Your task to perform on an android device: View the shopping cart on amazon.com. Add "alienware area 51" to the cart on amazon.com Image 0: 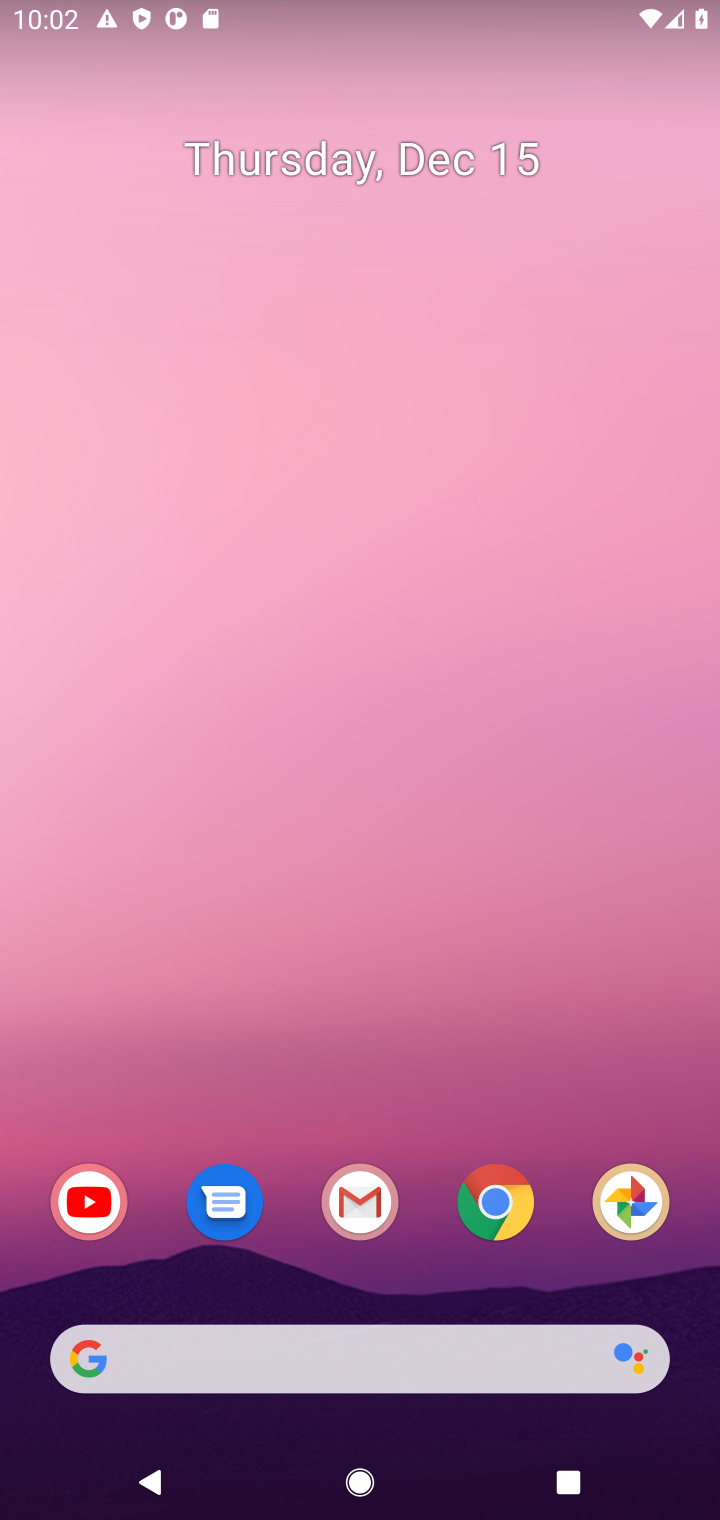
Step 0: click (494, 1202)
Your task to perform on an android device: View the shopping cart on amazon.com. Add "alienware area 51" to the cart on amazon.com Image 1: 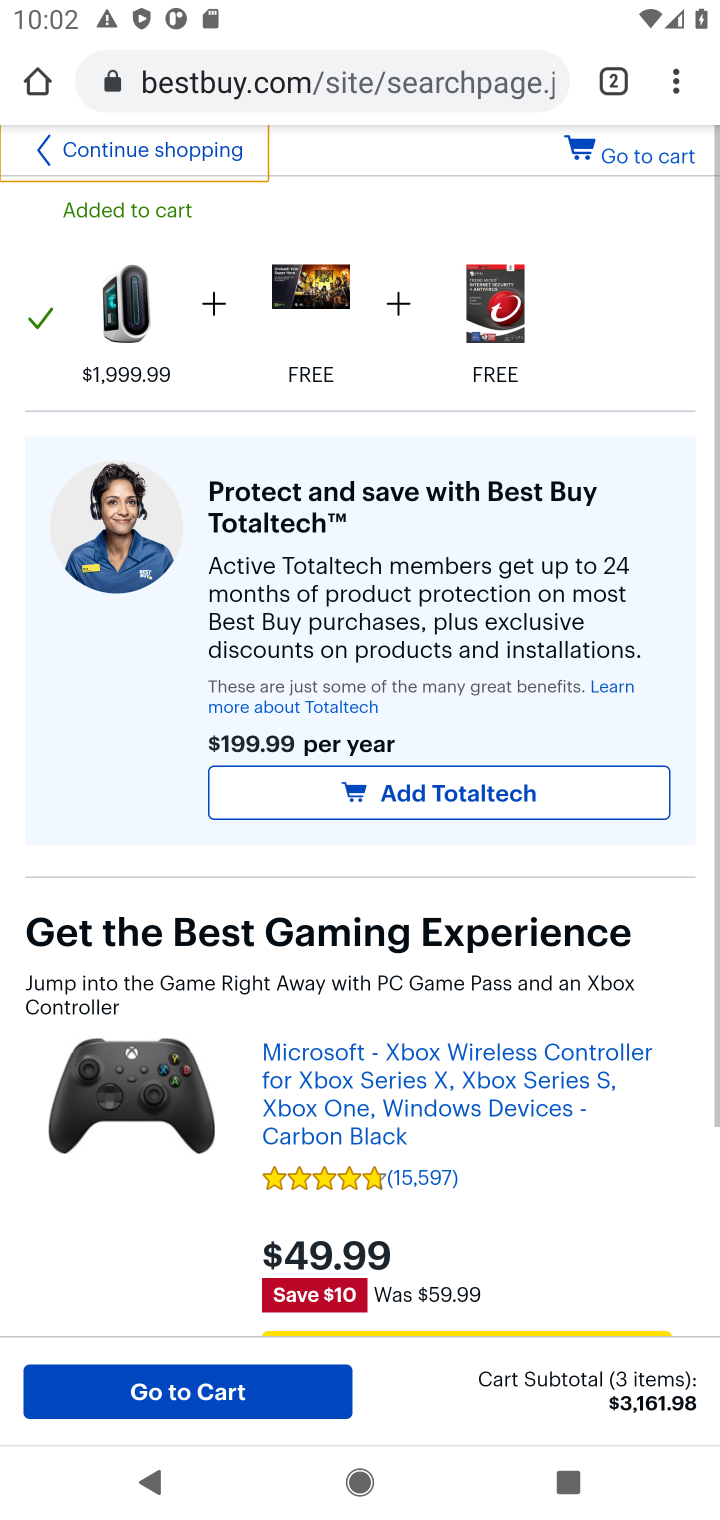
Step 1: click (238, 80)
Your task to perform on an android device: View the shopping cart on amazon.com. Add "alienware area 51" to the cart on amazon.com Image 2: 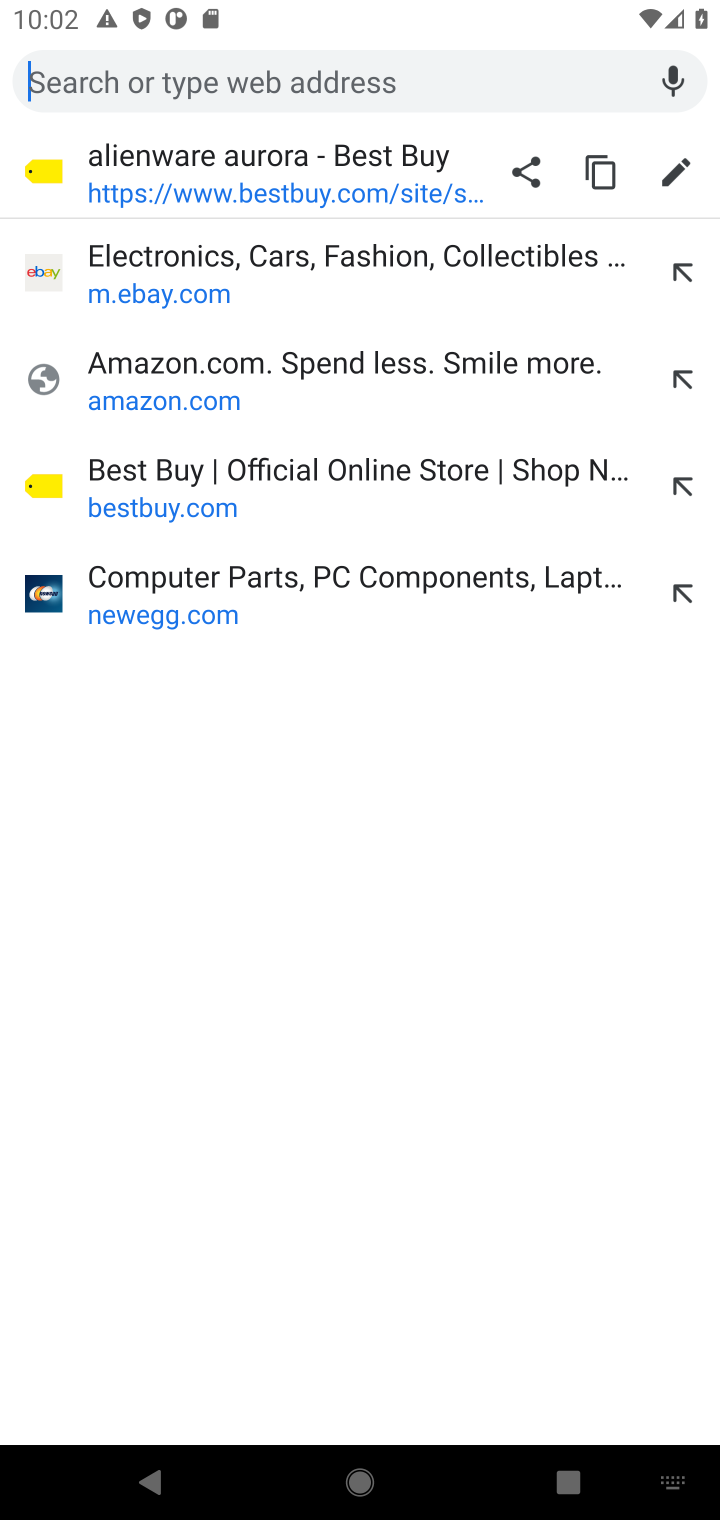
Step 2: click (133, 399)
Your task to perform on an android device: View the shopping cart on amazon.com. Add "alienware area 51" to the cart on amazon.com Image 3: 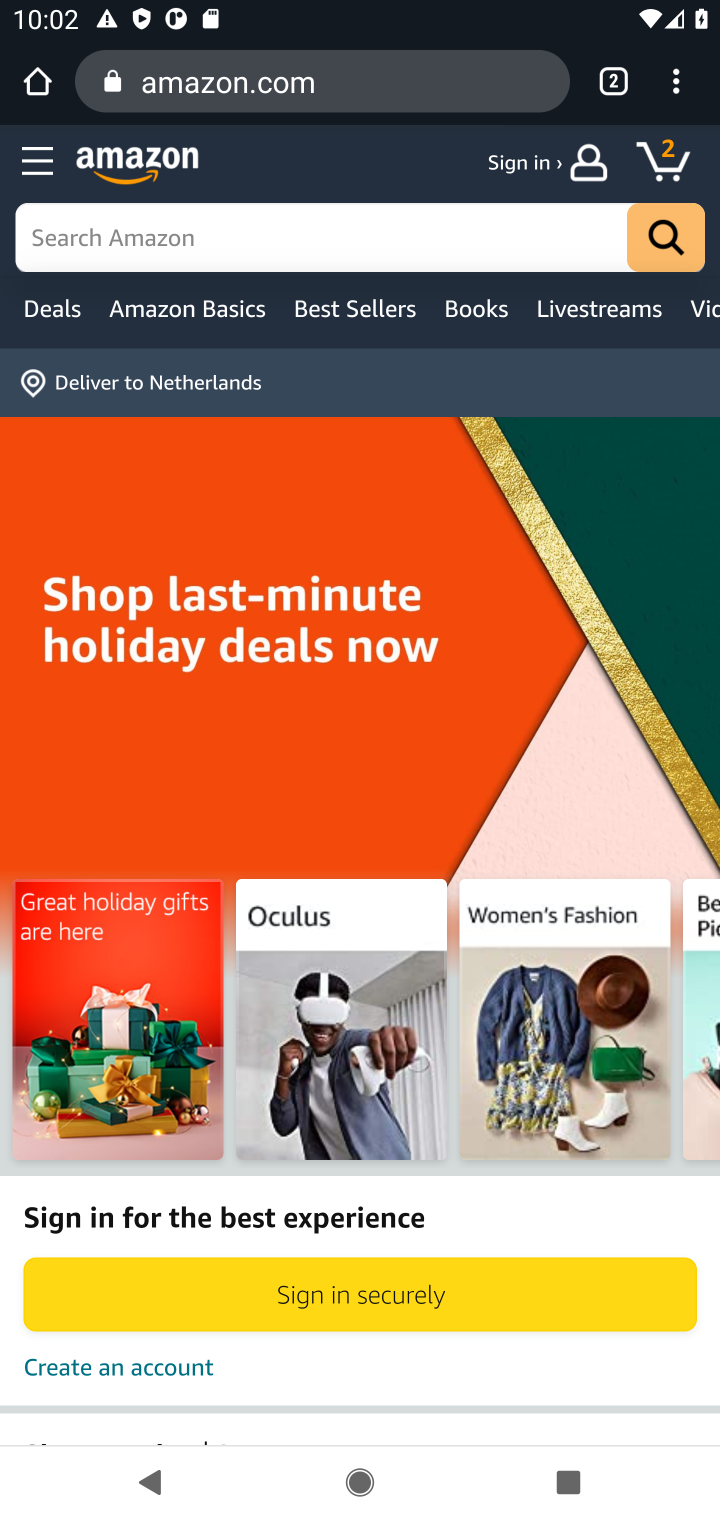
Step 3: click (670, 167)
Your task to perform on an android device: View the shopping cart on amazon.com. Add "alienware area 51" to the cart on amazon.com Image 4: 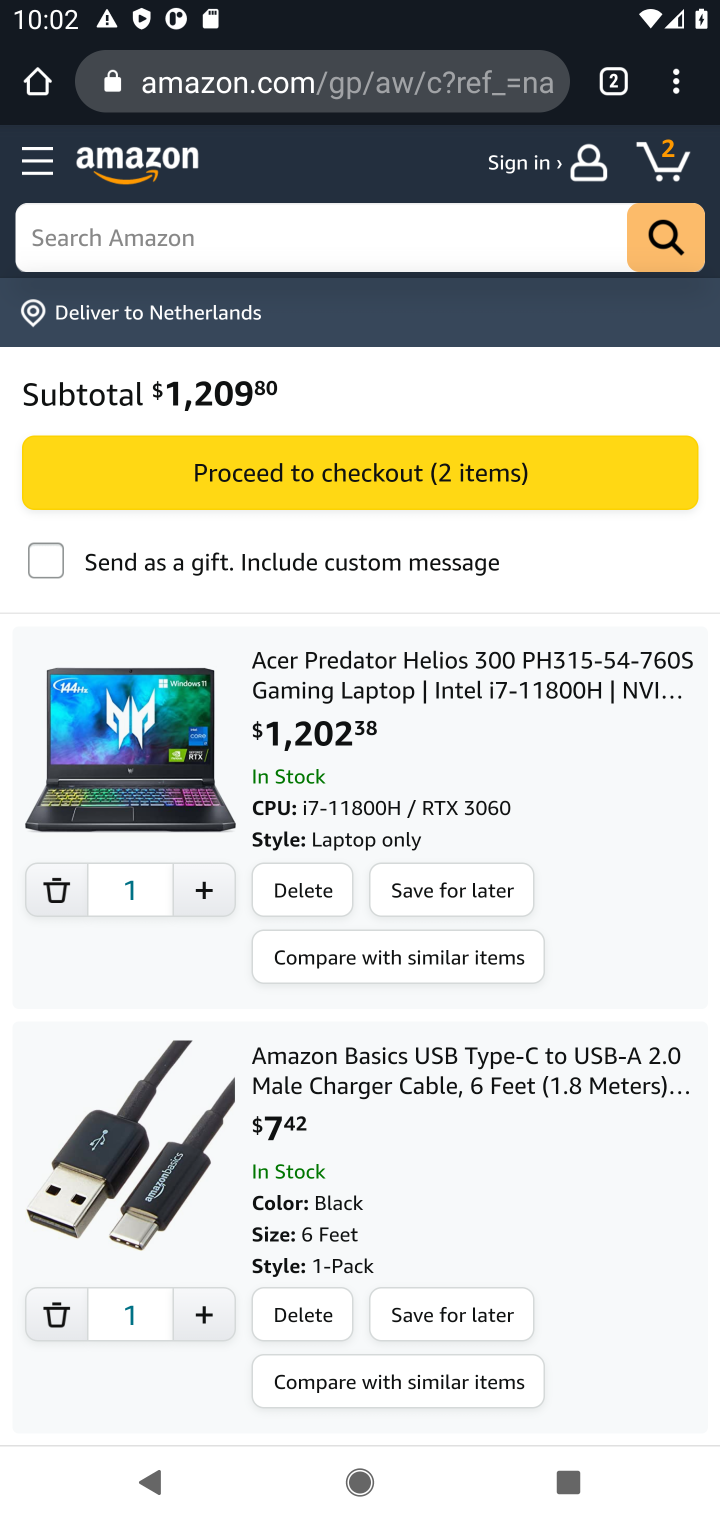
Step 4: click (158, 239)
Your task to perform on an android device: View the shopping cart on amazon.com. Add "alienware area 51" to the cart on amazon.com Image 5: 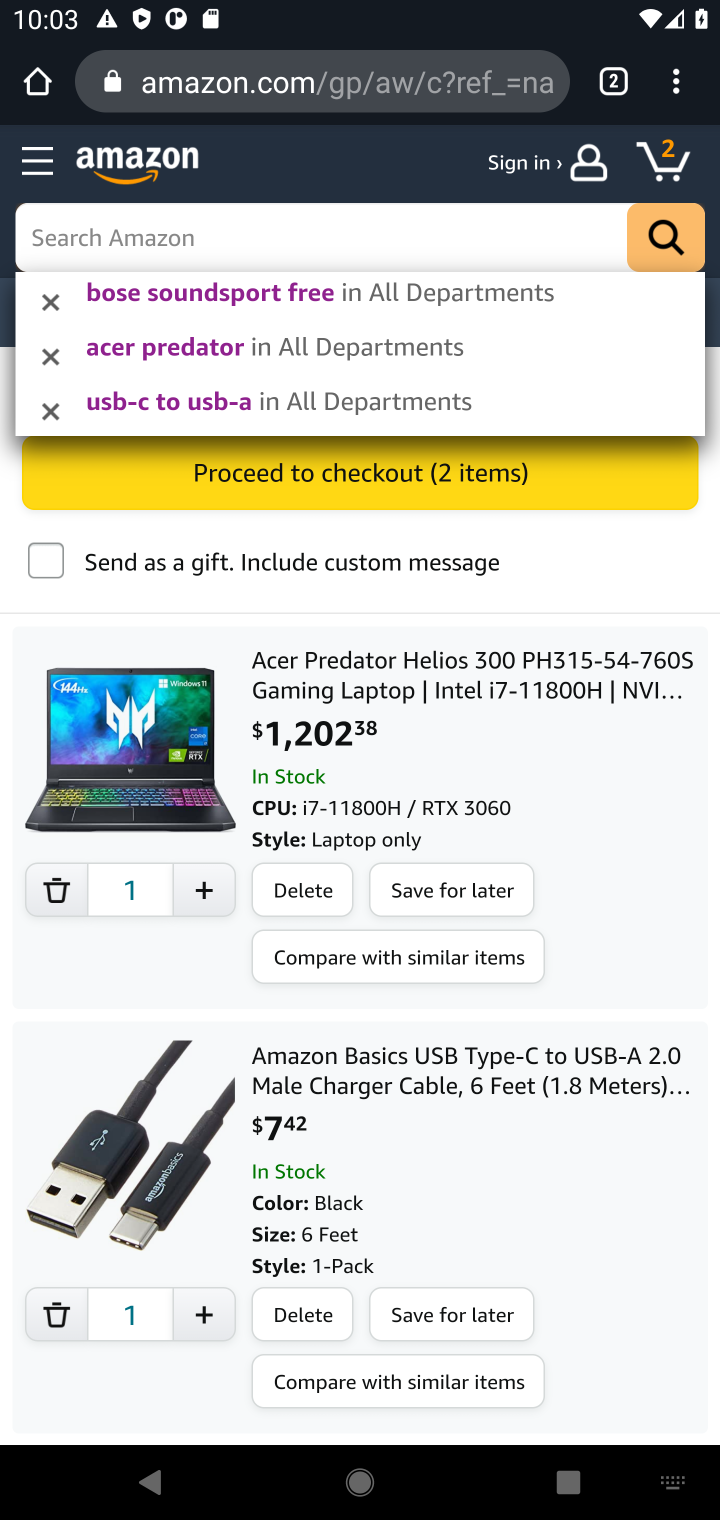
Step 5: type "alienware area 51"
Your task to perform on an android device: View the shopping cart on amazon.com. Add "alienware area 51" to the cart on amazon.com Image 6: 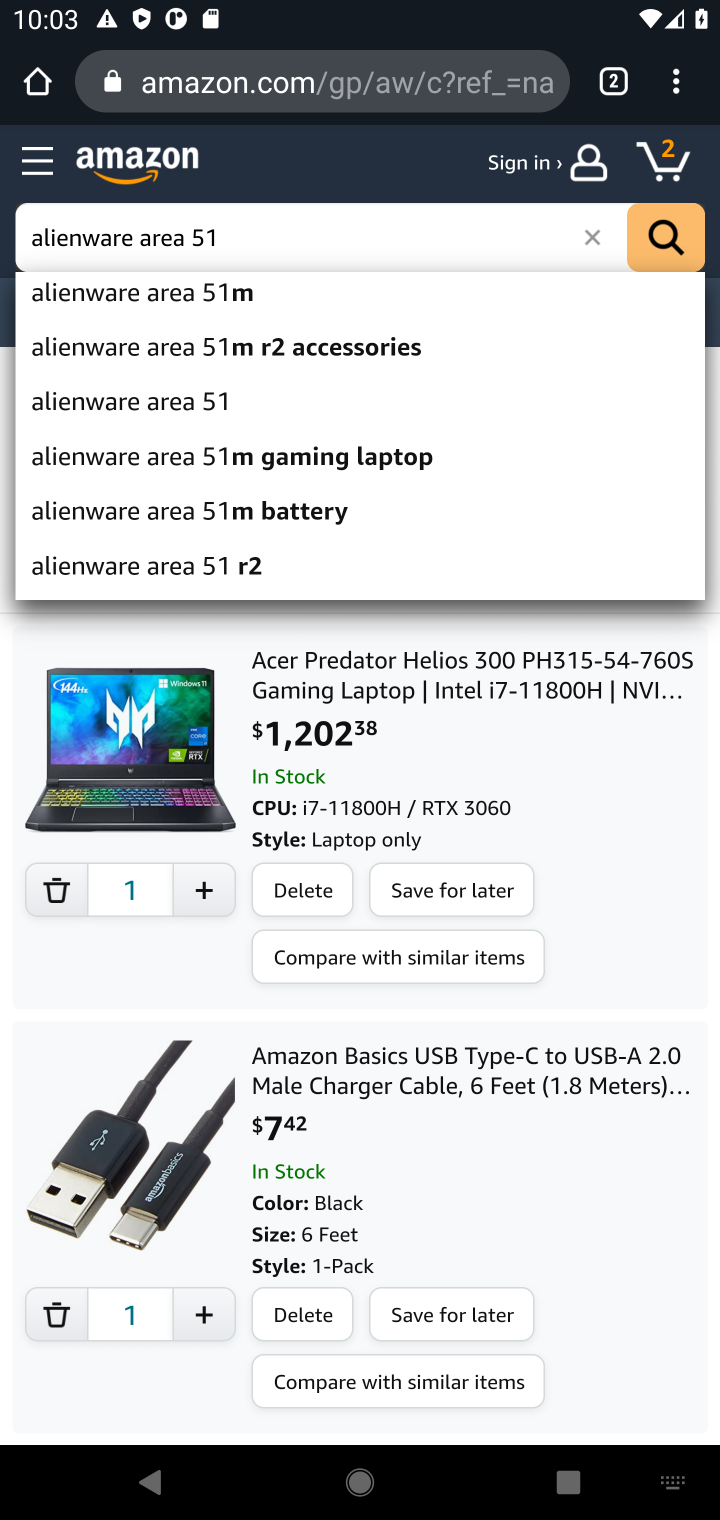
Step 6: click (159, 400)
Your task to perform on an android device: View the shopping cart on amazon.com. Add "alienware area 51" to the cart on amazon.com Image 7: 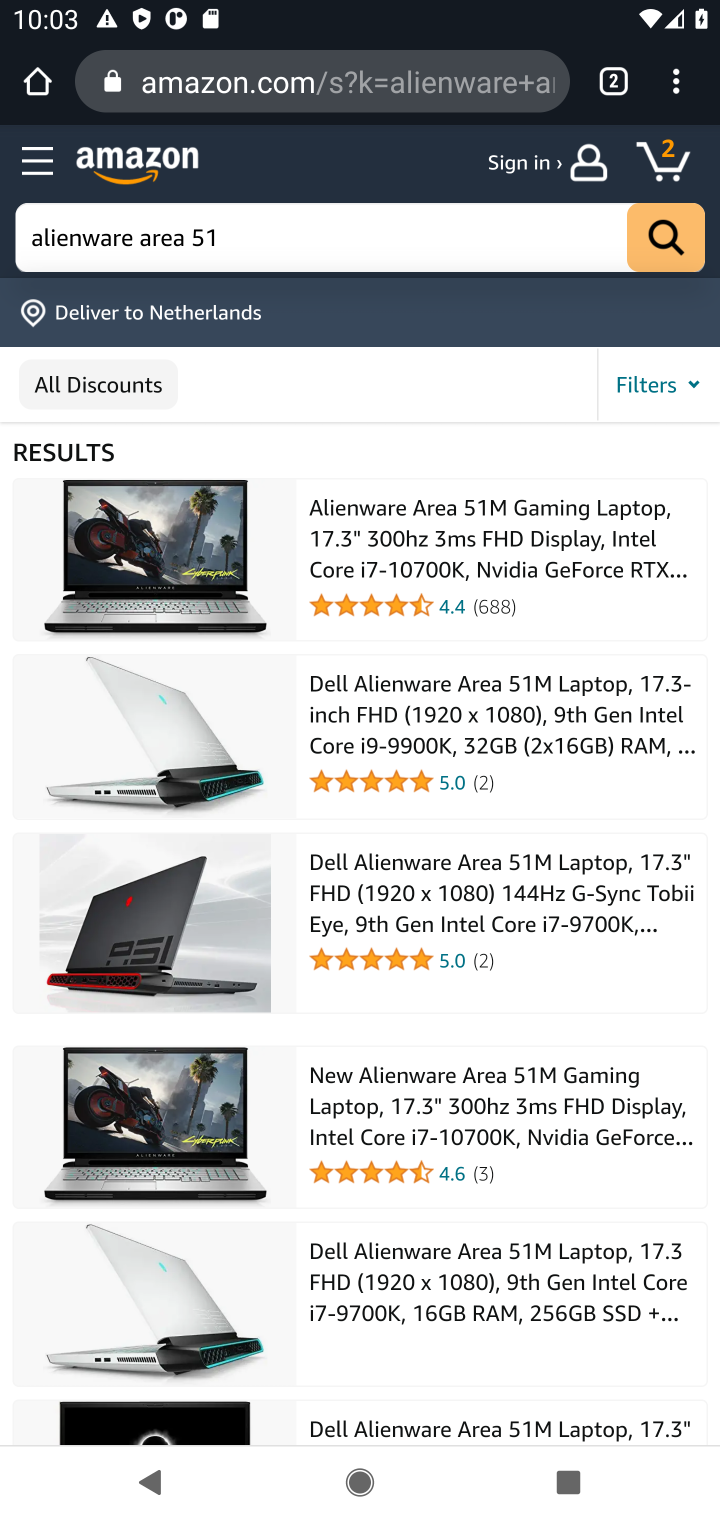
Step 7: drag from (289, 908) to (330, 346)
Your task to perform on an android device: View the shopping cart on amazon.com. Add "alienware area 51" to the cart on amazon.com Image 8: 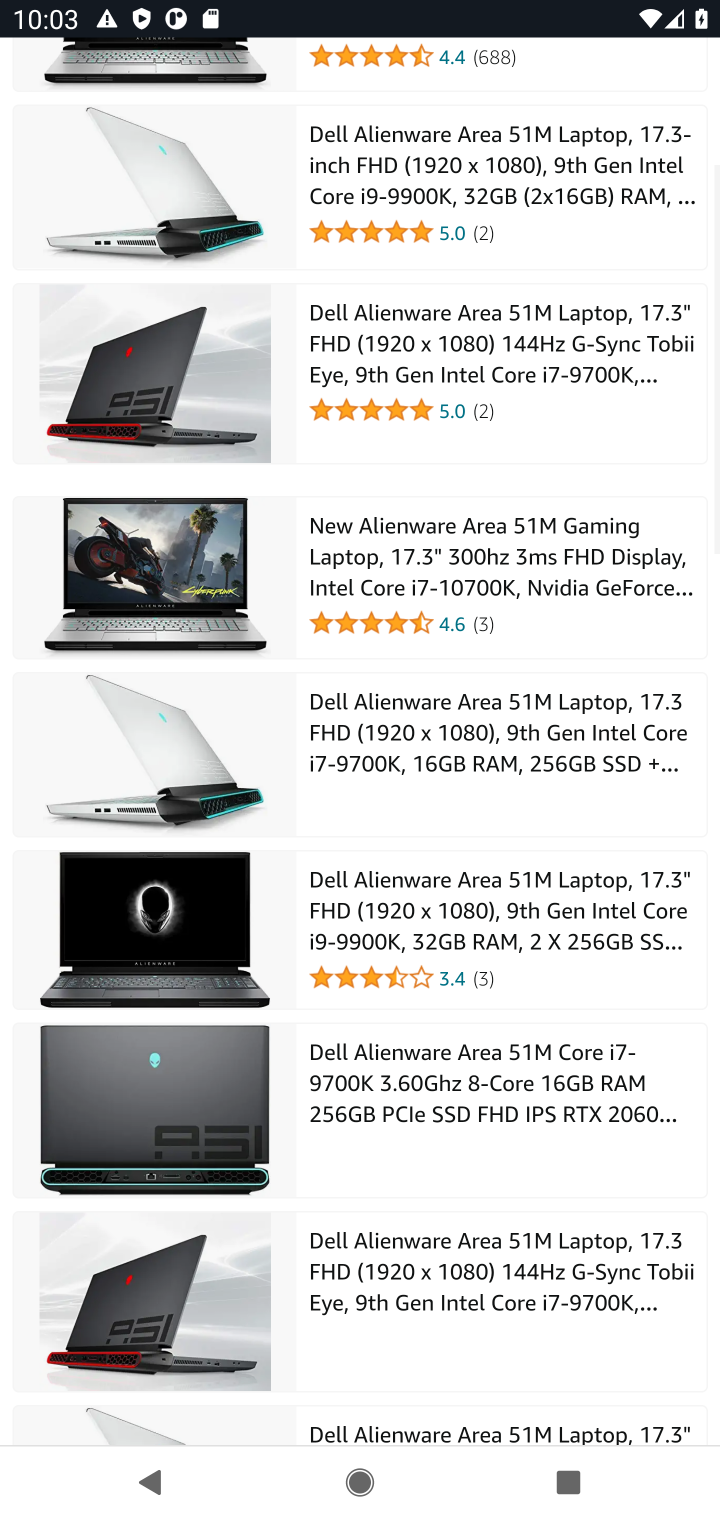
Step 8: drag from (335, 907) to (367, 452)
Your task to perform on an android device: View the shopping cart on amazon.com. Add "alienware area 51" to the cart on amazon.com Image 9: 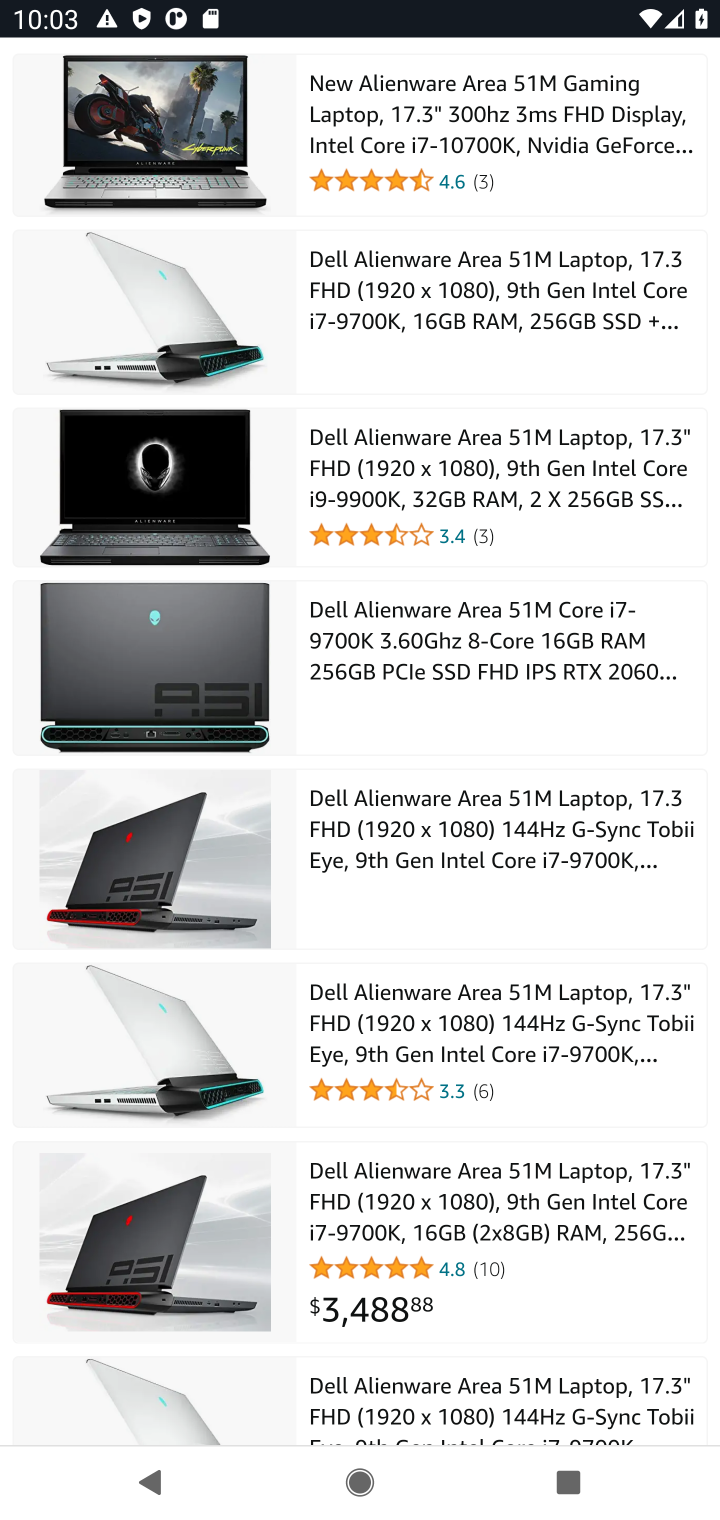
Step 9: drag from (326, 1021) to (353, 493)
Your task to perform on an android device: View the shopping cart on amazon.com. Add "alienware area 51" to the cart on amazon.com Image 10: 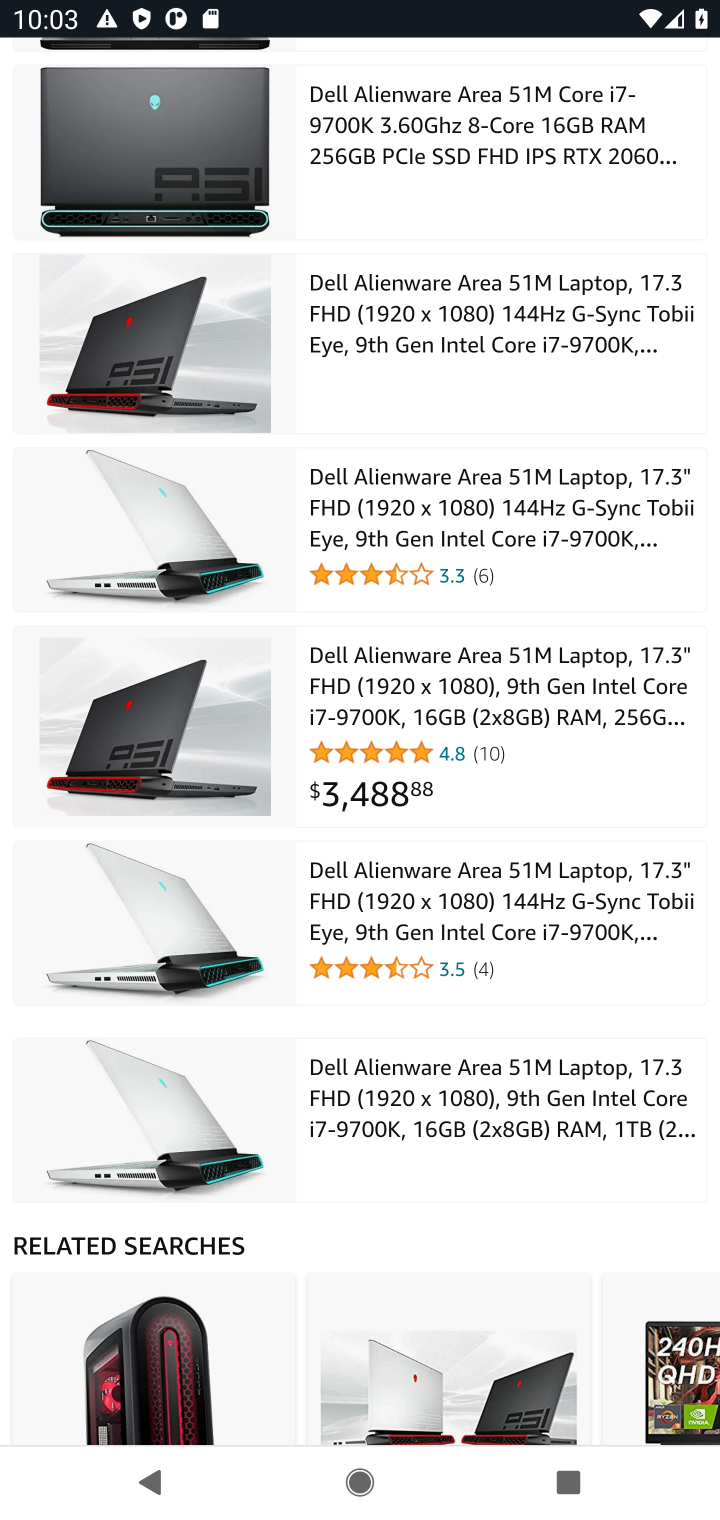
Step 10: drag from (317, 796) to (329, 333)
Your task to perform on an android device: View the shopping cart on amazon.com. Add "alienware area 51" to the cart on amazon.com Image 11: 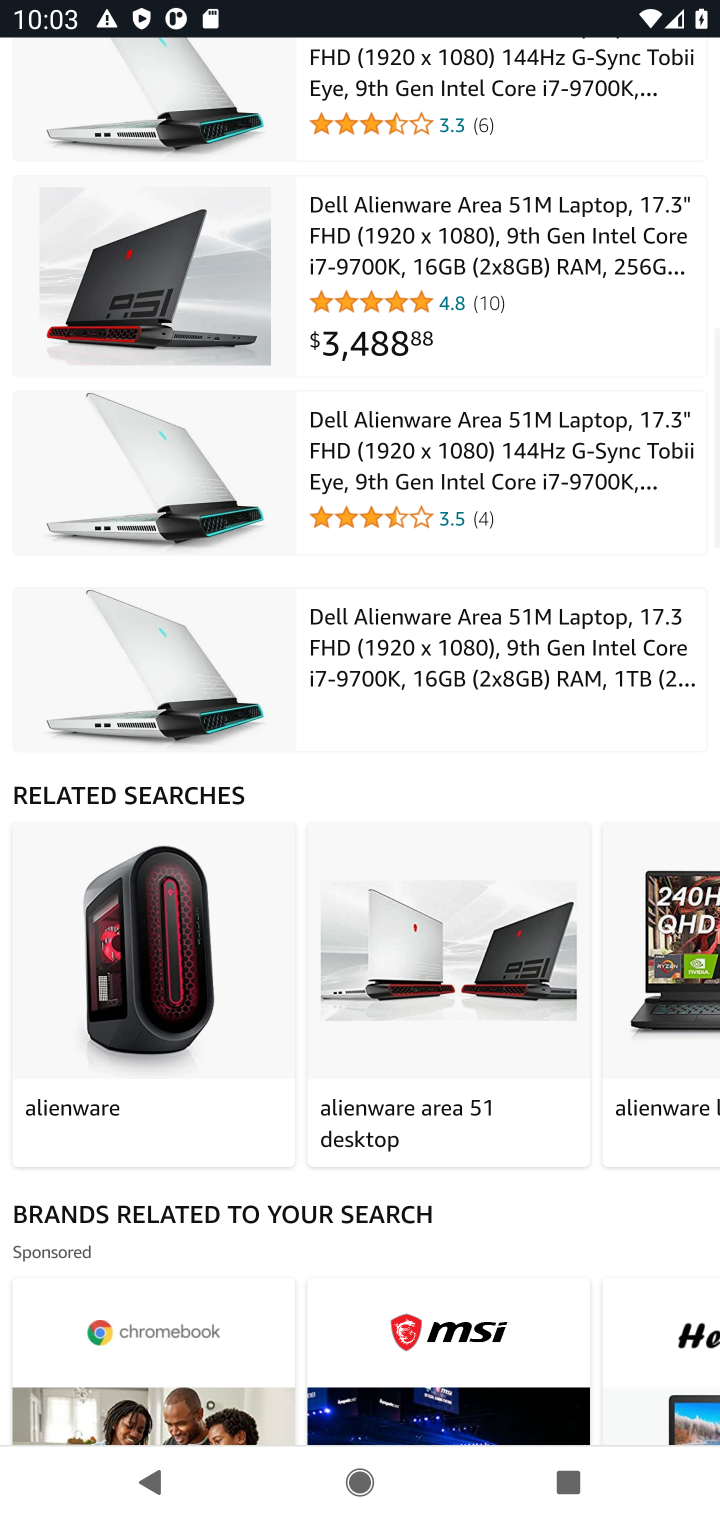
Step 11: drag from (316, 1263) to (353, 574)
Your task to perform on an android device: View the shopping cart on amazon.com. Add "alienware area 51" to the cart on amazon.com Image 12: 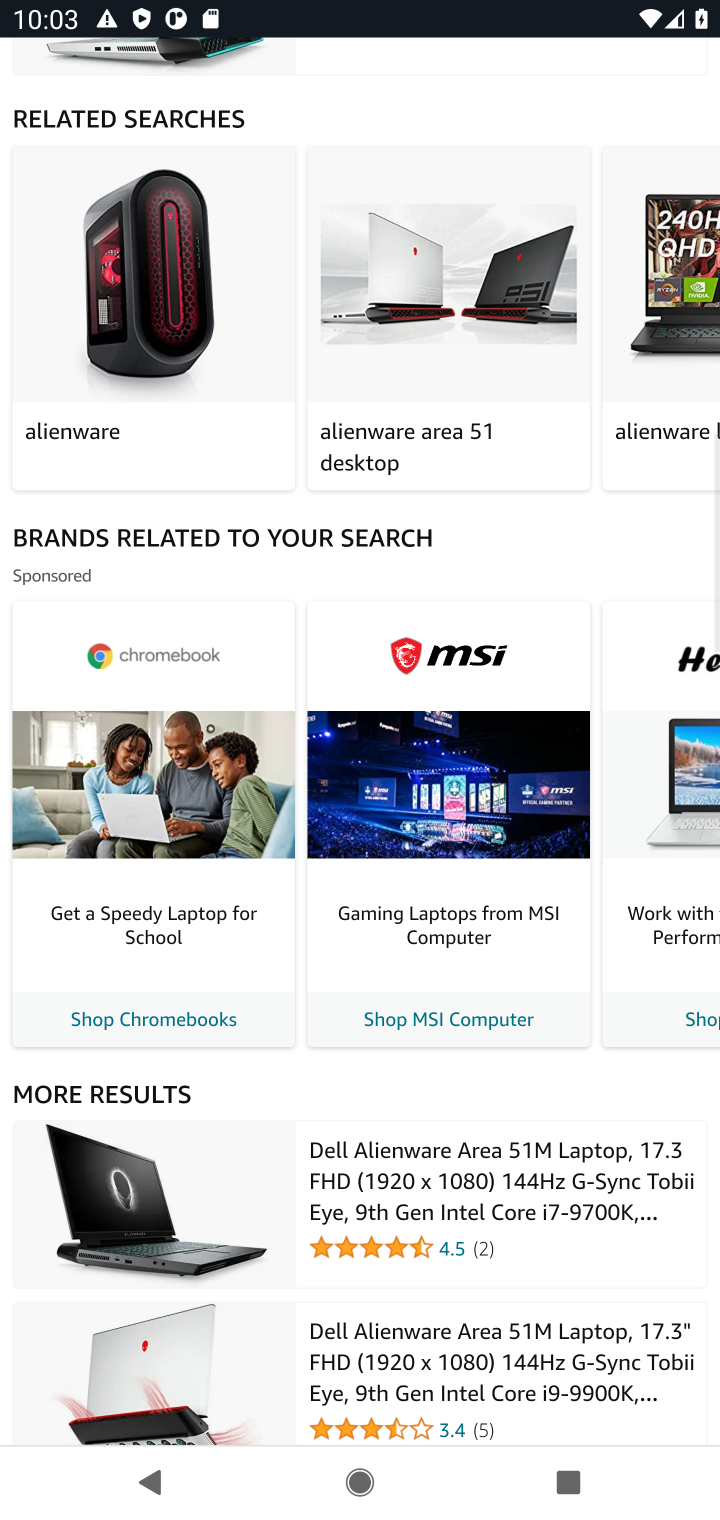
Step 12: drag from (286, 1150) to (330, 572)
Your task to perform on an android device: View the shopping cart on amazon.com. Add "alienware area 51" to the cart on amazon.com Image 13: 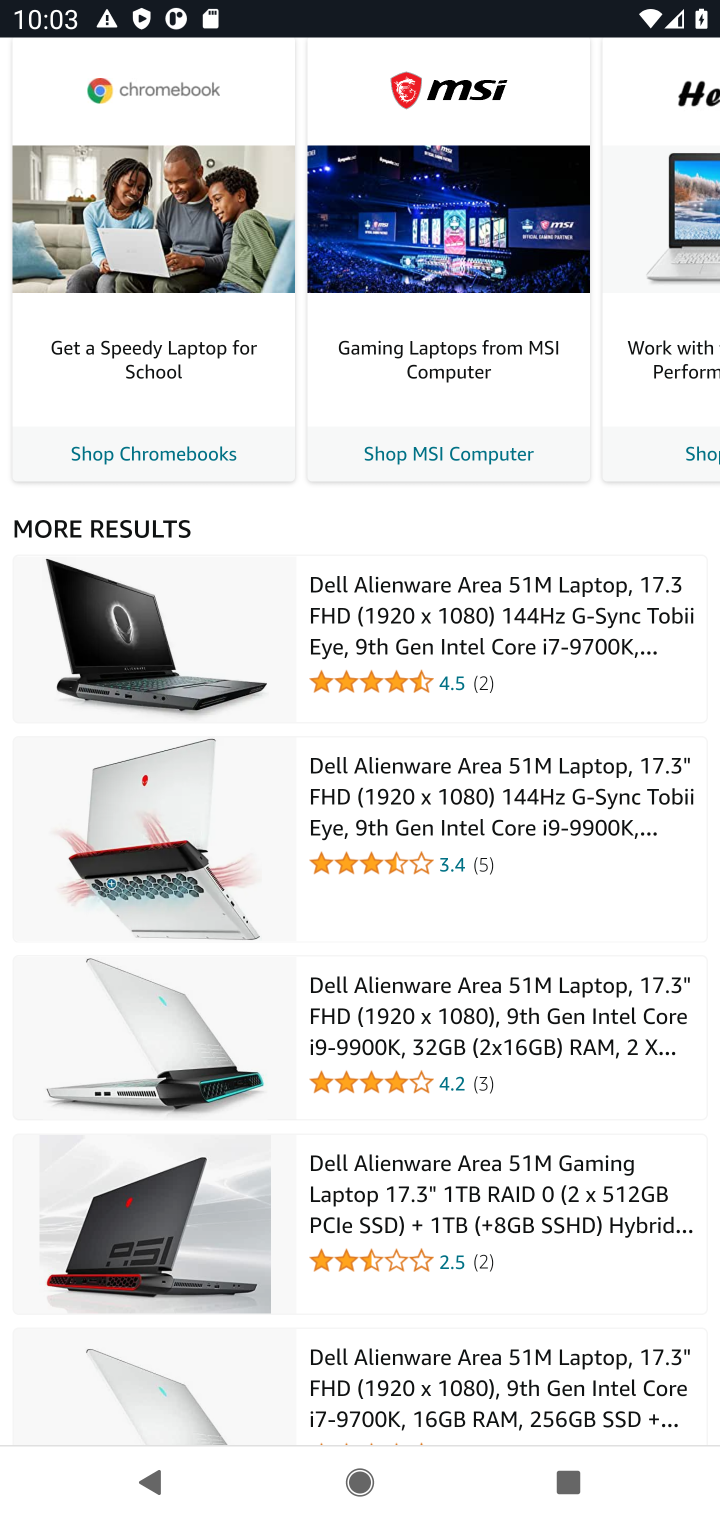
Step 13: drag from (336, 1112) to (319, 592)
Your task to perform on an android device: View the shopping cart on amazon.com. Add "alienware area 51" to the cart on amazon.com Image 14: 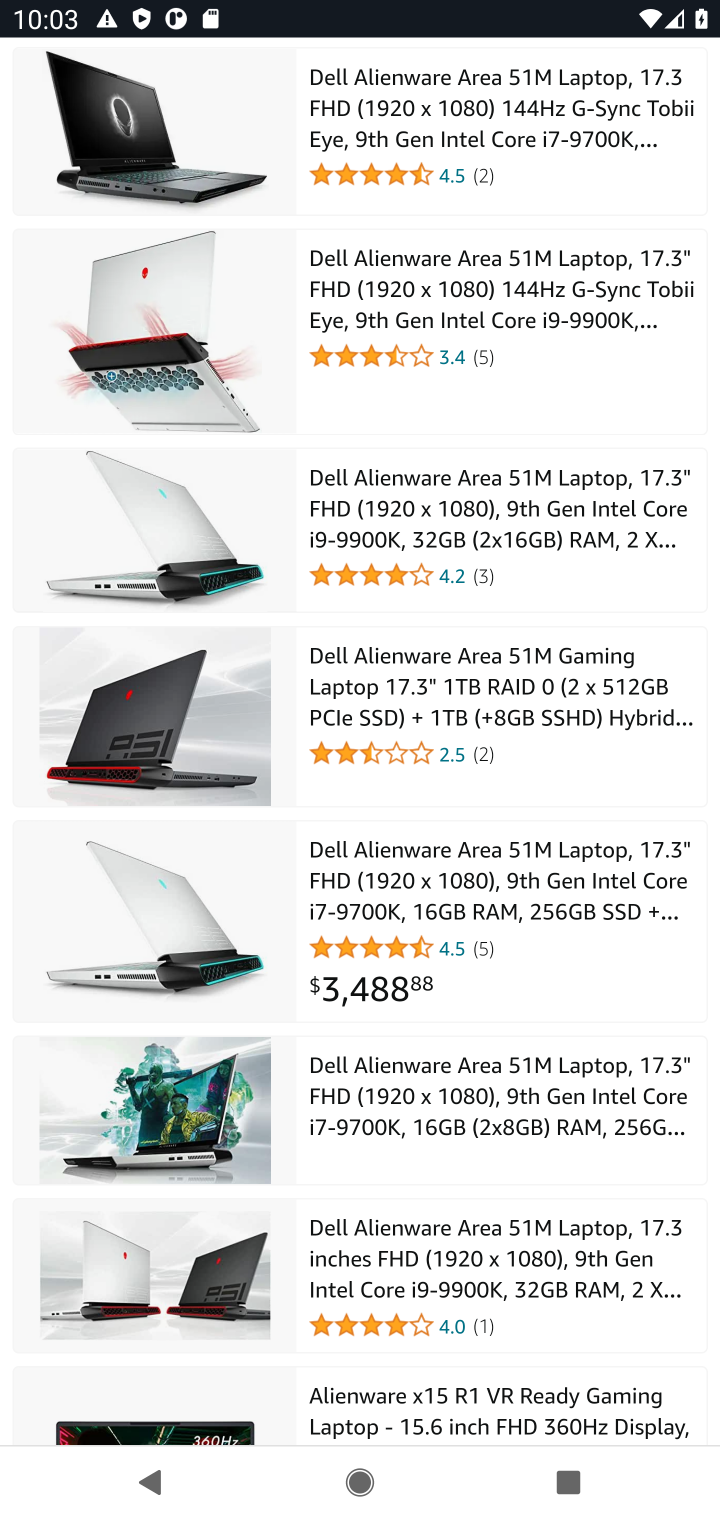
Step 14: drag from (323, 1173) to (360, 505)
Your task to perform on an android device: View the shopping cart on amazon.com. Add "alienware area 51" to the cart on amazon.com Image 15: 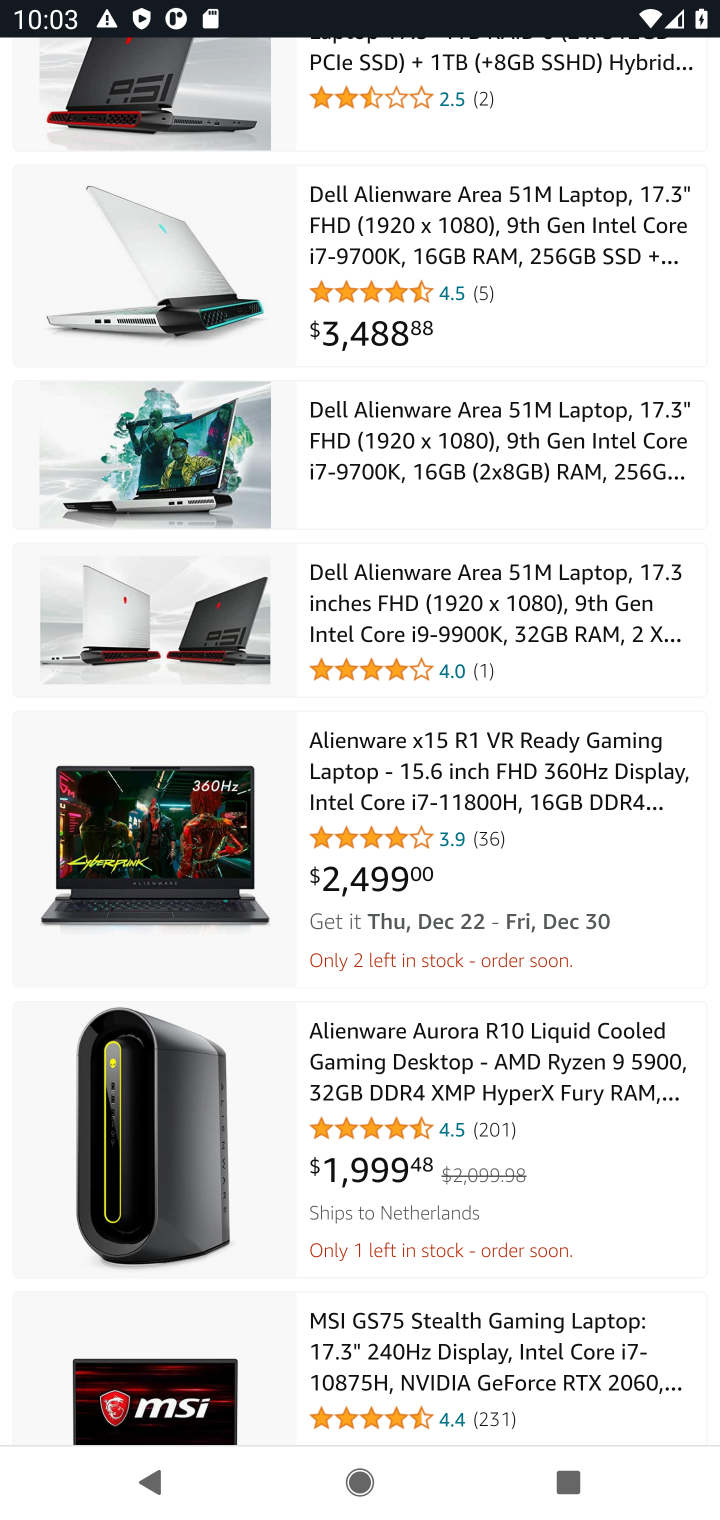
Step 15: drag from (379, 1023) to (391, 696)
Your task to perform on an android device: View the shopping cart on amazon.com. Add "alienware area 51" to the cart on amazon.com Image 16: 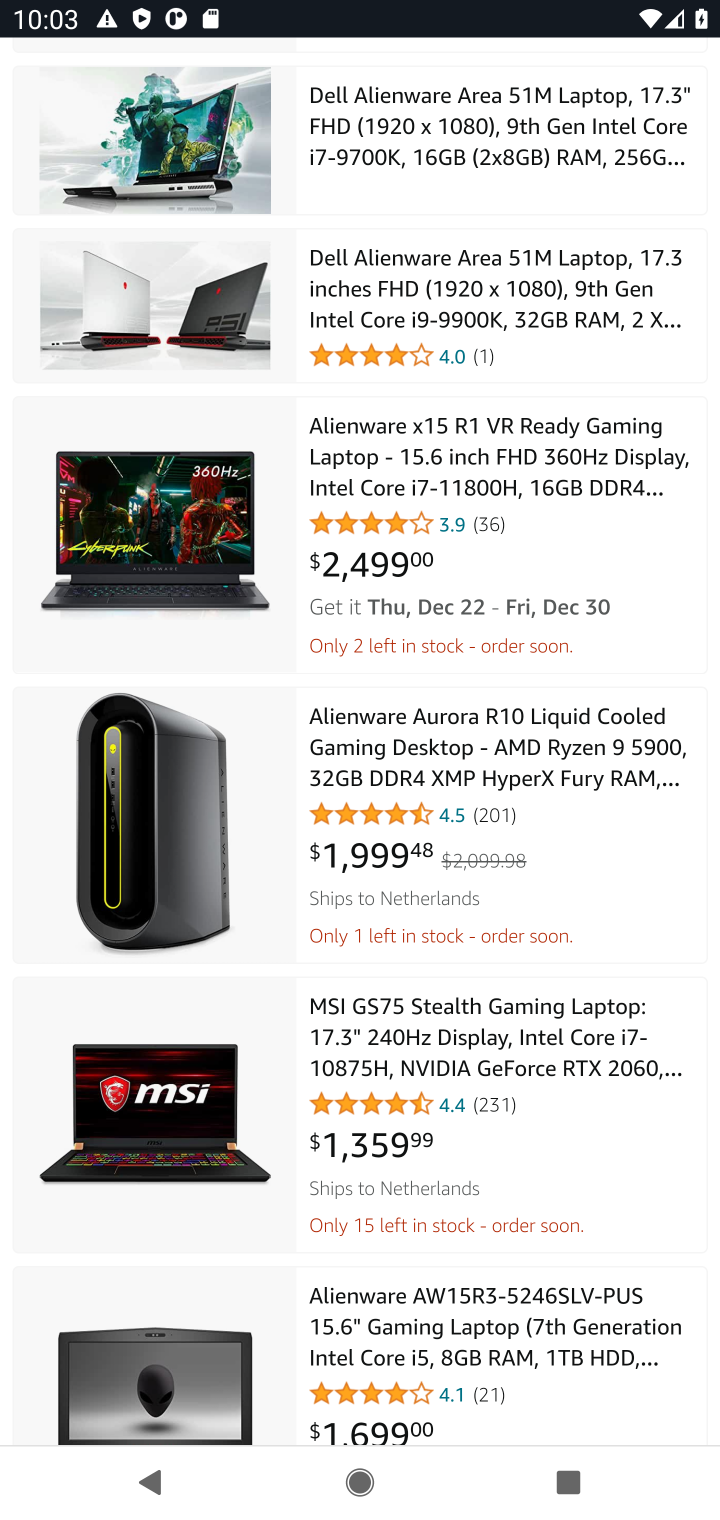
Step 16: drag from (394, 696) to (396, 1332)
Your task to perform on an android device: View the shopping cart on amazon.com. Add "alienware area 51" to the cart on amazon.com Image 17: 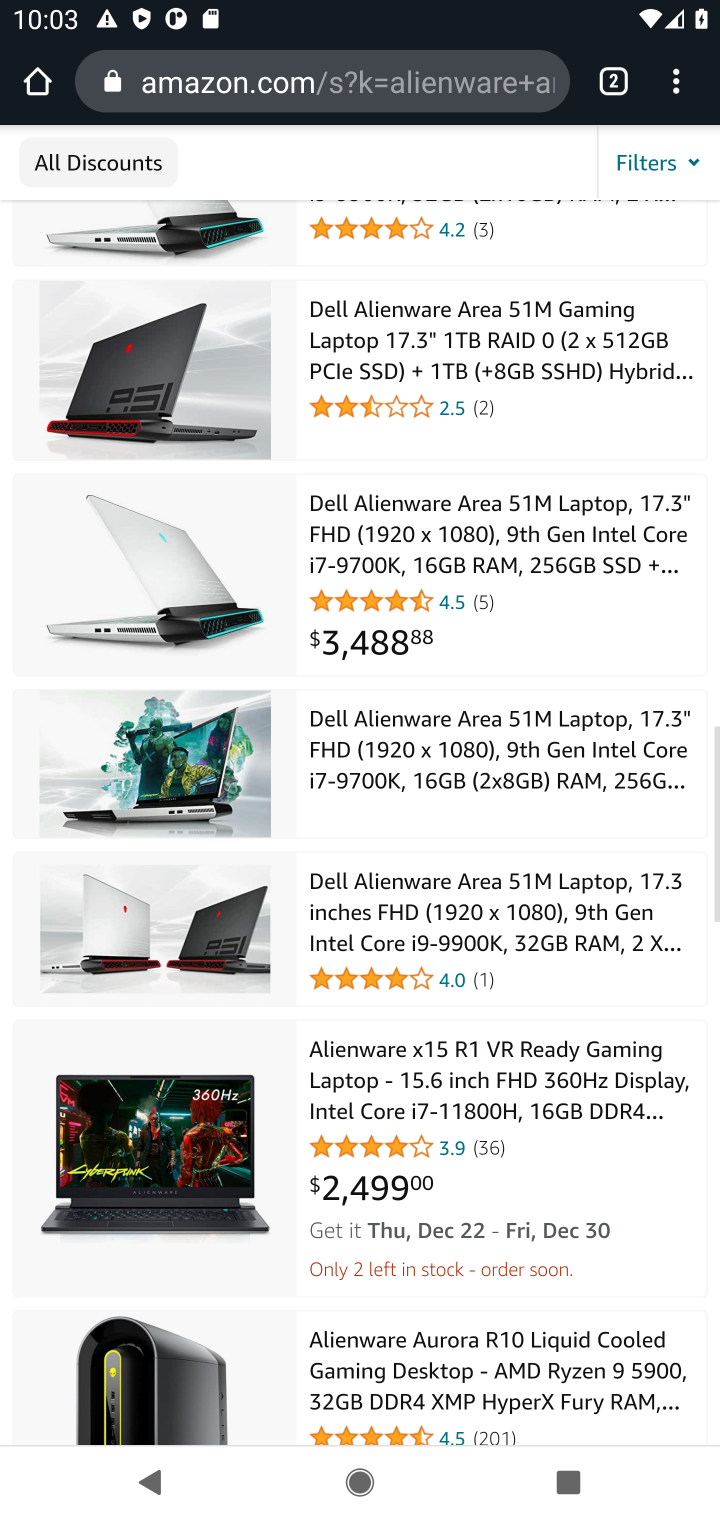
Step 17: drag from (413, 442) to (334, 1438)
Your task to perform on an android device: View the shopping cart on amazon.com. Add "alienware area 51" to the cart on amazon.com Image 18: 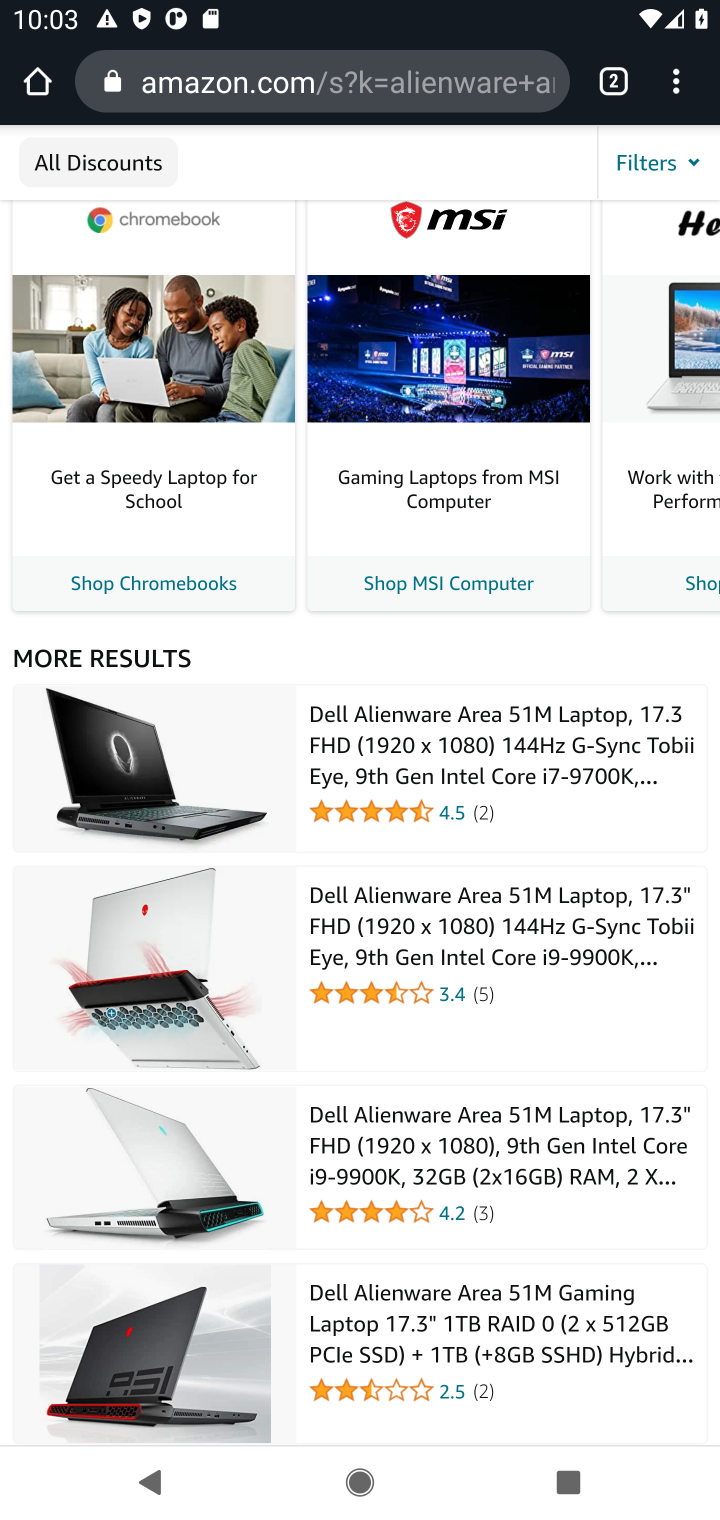
Step 18: drag from (329, 1024) to (329, 616)
Your task to perform on an android device: View the shopping cart on amazon.com. Add "alienware area 51" to the cart on amazon.com Image 19: 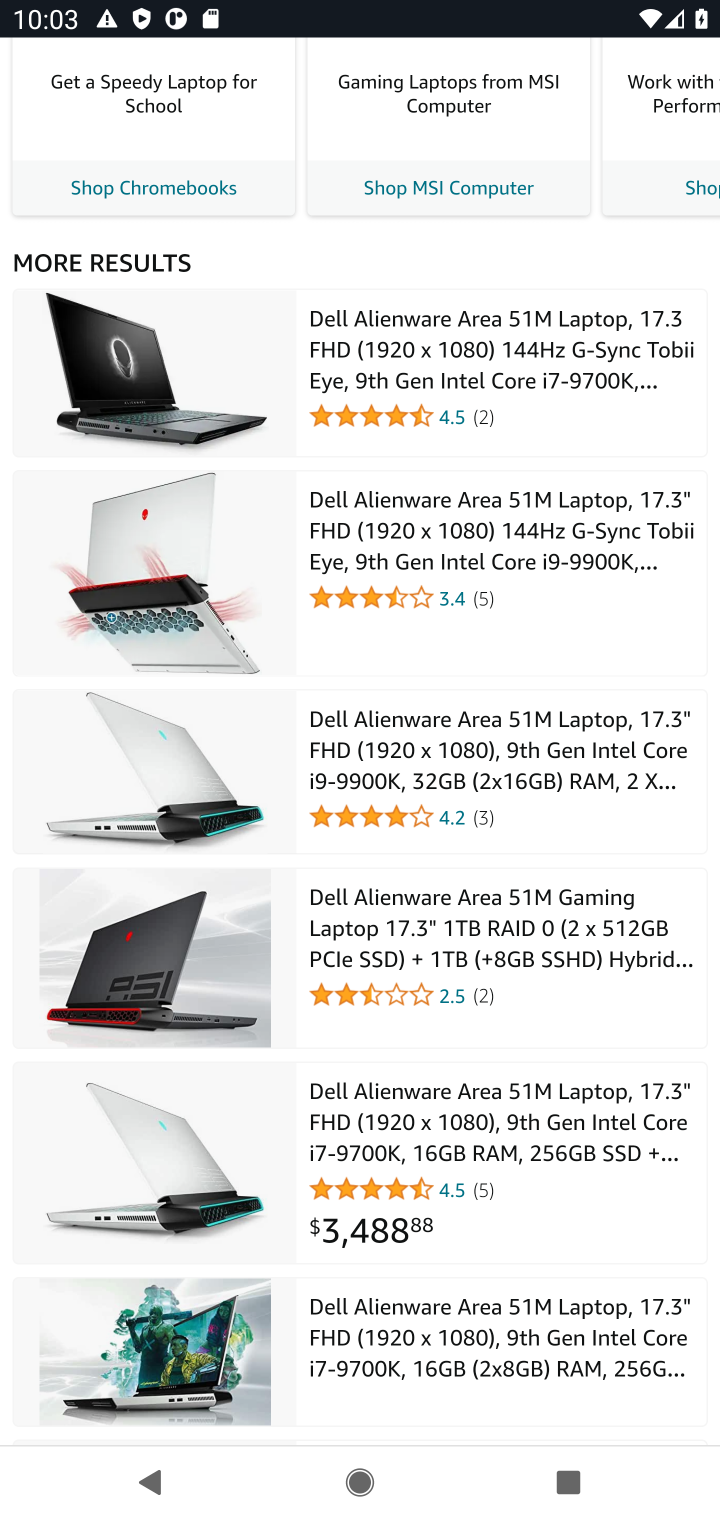
Step 19: click (331, 1116)
Your task to perform on an android device: View the shopping cart on amazon.com. Add "alienware area 51" to the cart on amazon.com Image 20: 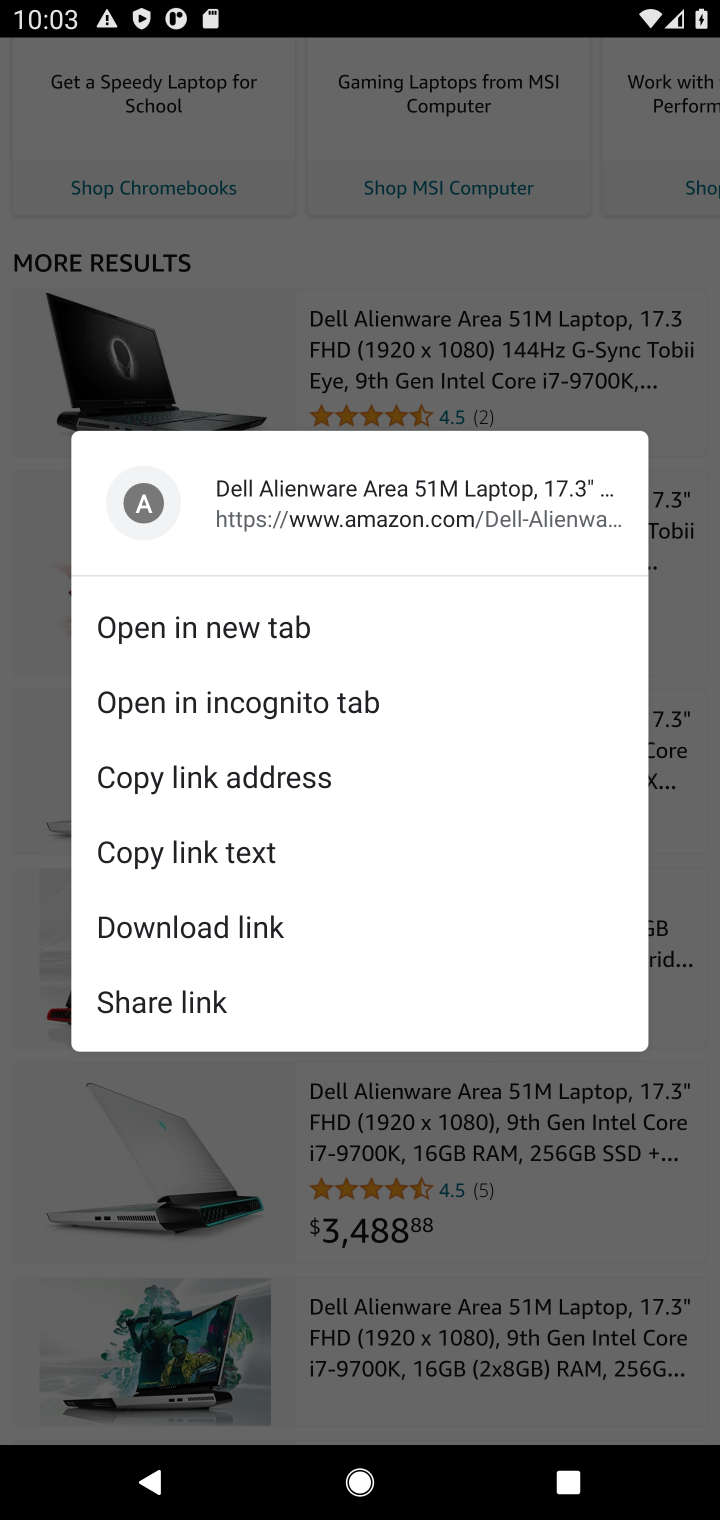
Step 20: click (500, 1135)
Your task to perform on an android device: View the shopping cart on amazon.com. Add "alienware area 51" to the cart on amazon.com Image 21: 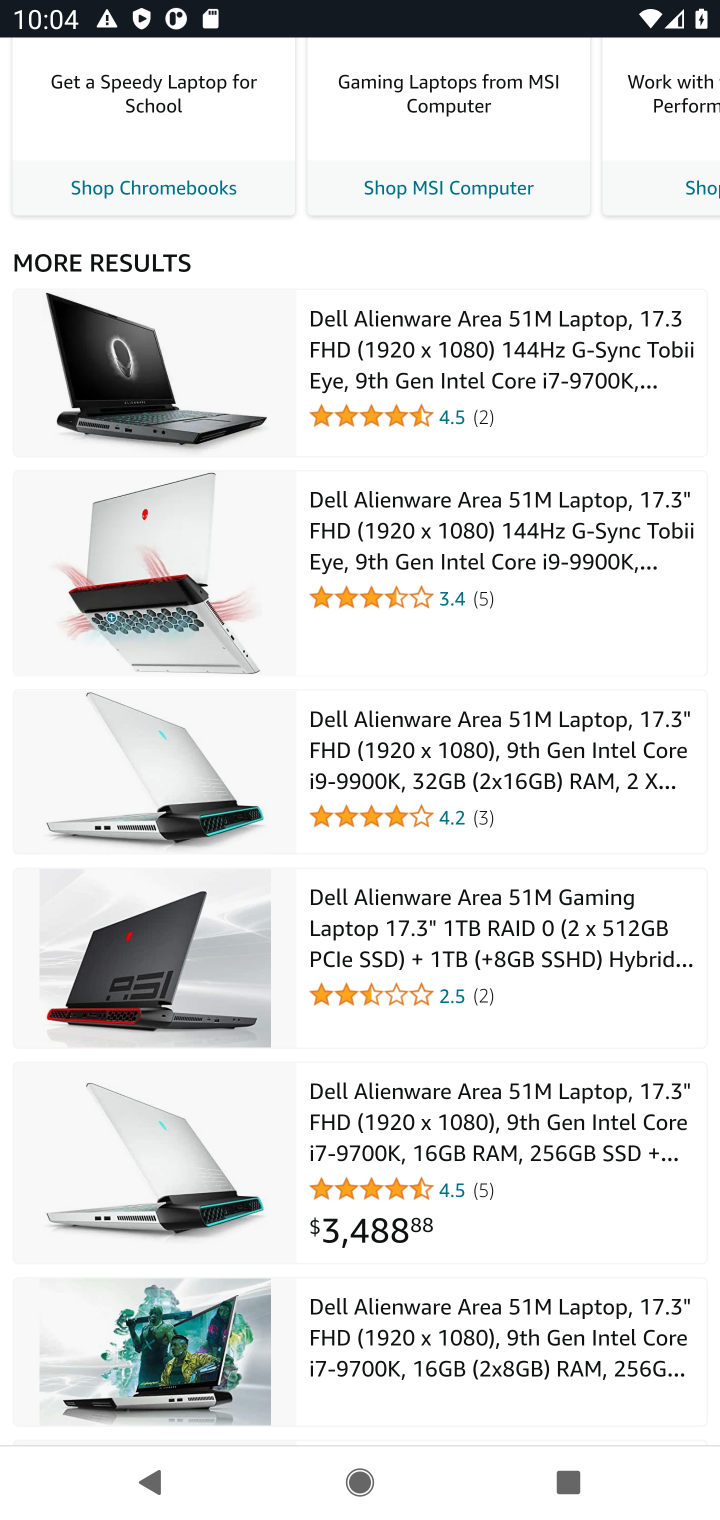
Step 21: click (475, 1141)
Your task to perform on an android device: View the shopping cart on amazon.com. Add "alienware area 51" to the cart on amazon.com Image 22: 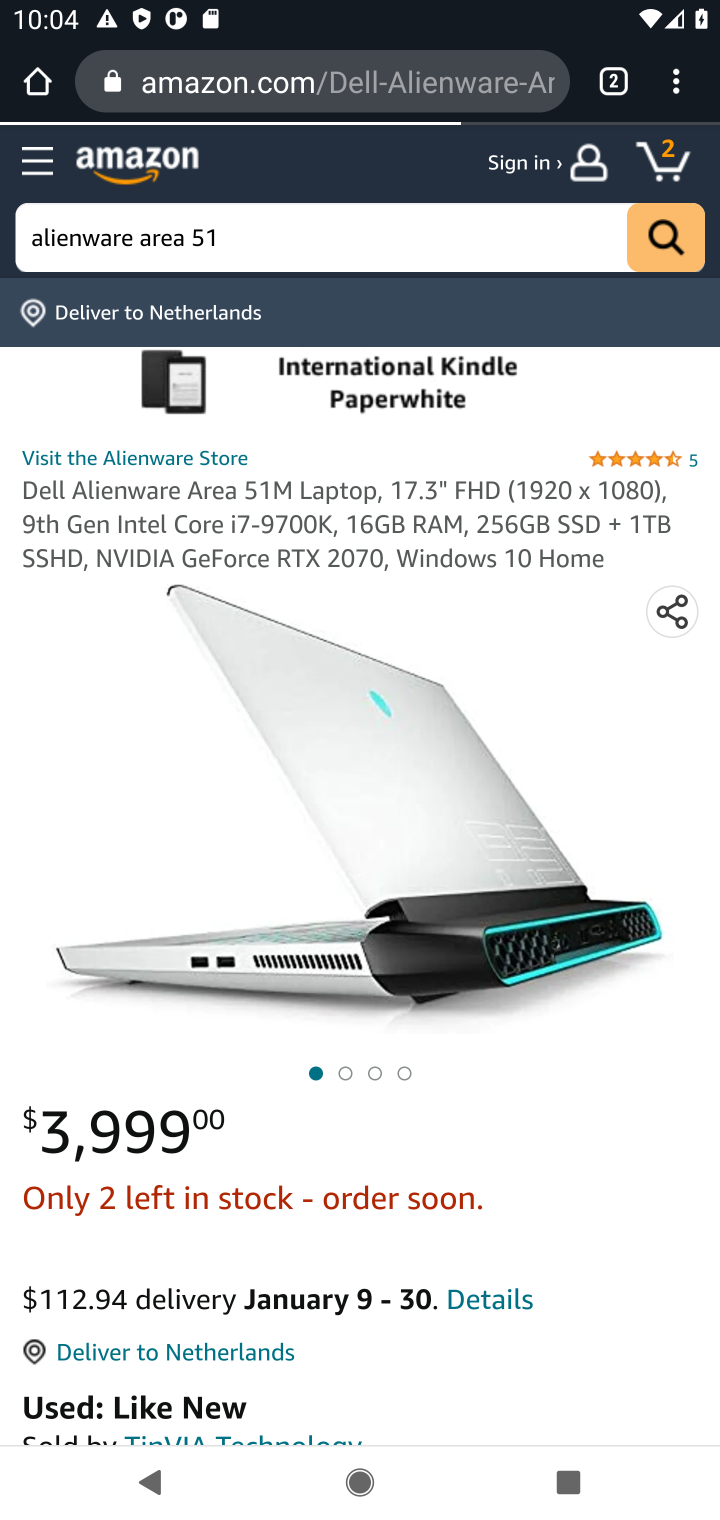
Step 22: drag from (473, 1077) to (473, 556)
Your task to perform on an android device: View the shopping cart on amazon.com. Add "alienware area 51" to the cart on amazon.com Image 23: 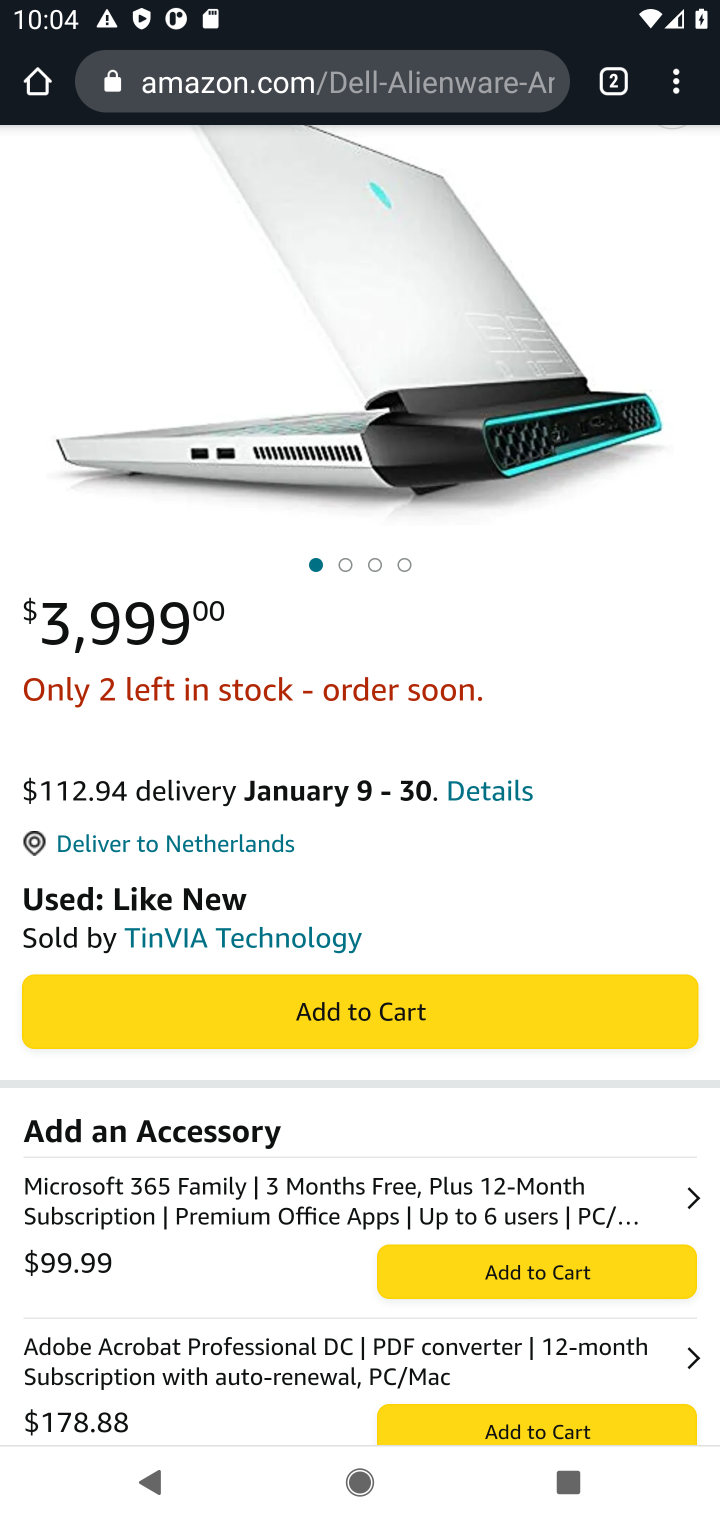
Step 23: click (342, 1023)
Your task to perform on an android device: View the shopping cart on amazon.com. Add "alienware area 51" to the cart on amazon.com Image 24: 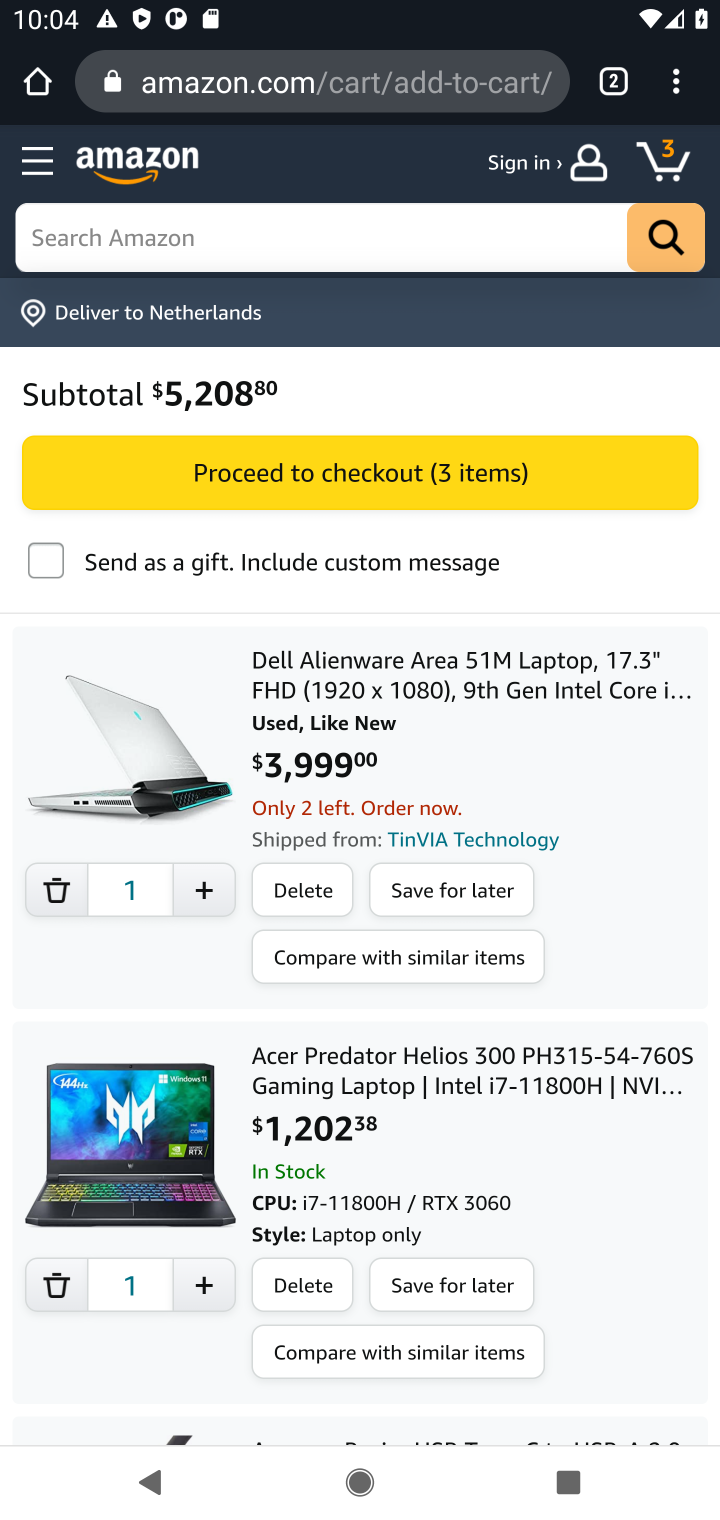
Step 24: task complete